Your task to perform on an android device: Search for seafood restaurants on Google Maps Image 0: 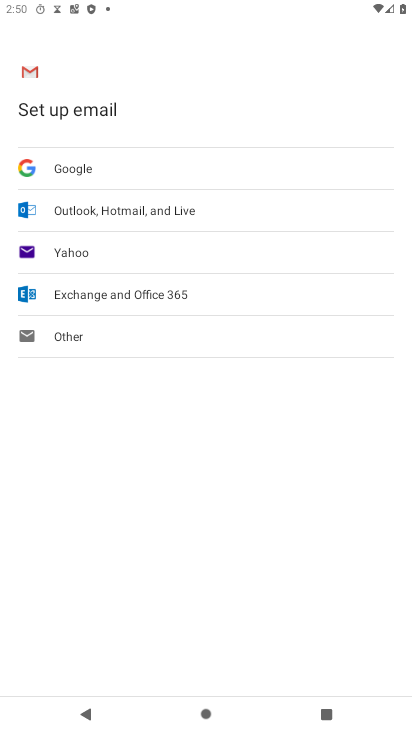
Step 0: press home button
Your task to perform on an android device: Search for seafood restaurants on Google Maps Image 1: 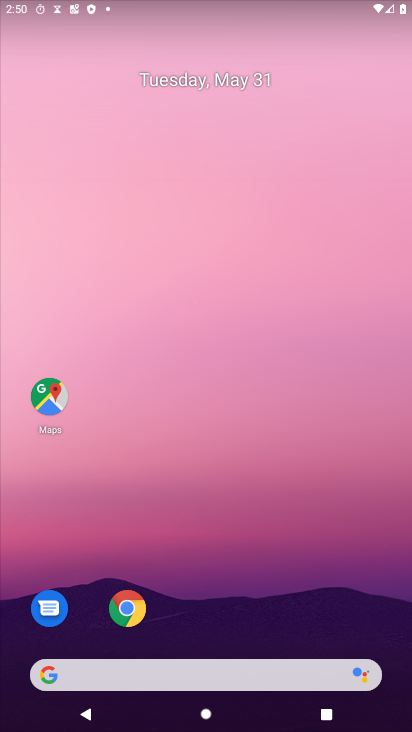
Step 1: click (59, 394)
Your task to perform on an android device: Search for seafood restaurants on Google Maps Image 2: 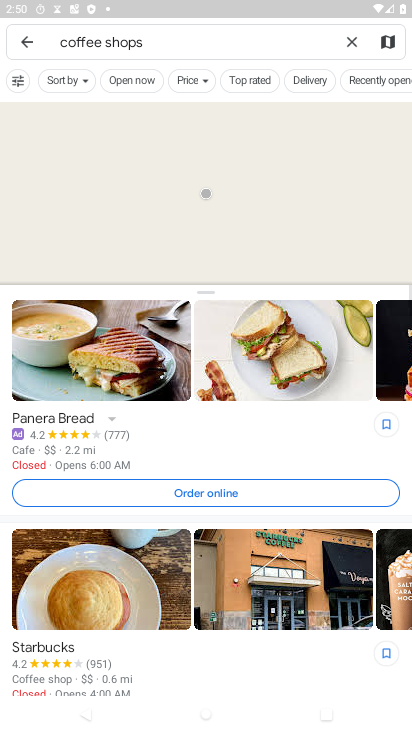
Step 2: click (344, 36)
Your task to perform on an android device: Search for seafood restaurants on Google Maps Image 3: 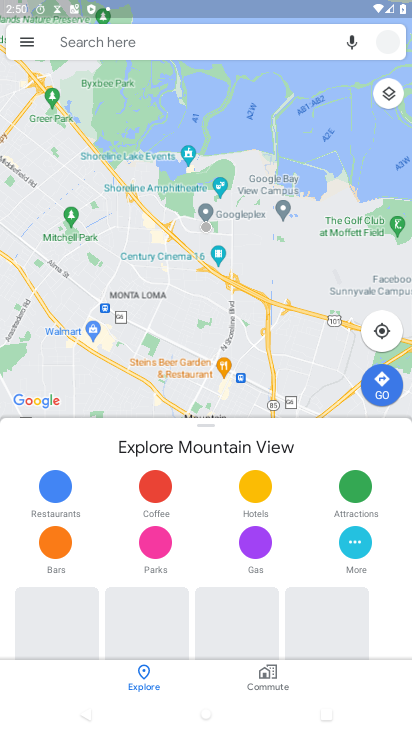
Step 3: click (186, 50)
Your task to perform on an android device: Search for seafood restaurants on Google Maps Image 4: 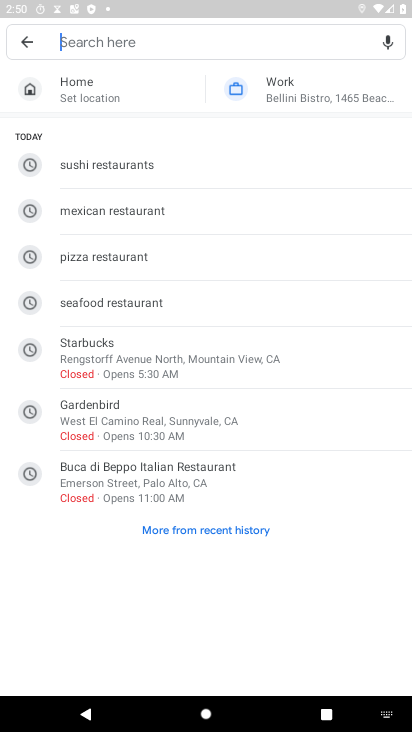
Step 4: type "seafood restaurants"
Your task to perform on an android device: Search for seafood restaurants on Google Maps Image 5: 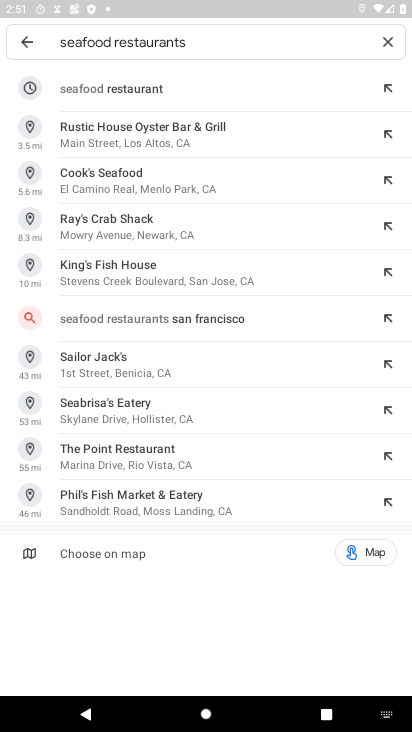
Step 5: click (148, 83)
Your task to perform on an android device: Search for seafood restaurants on Google Maps Image 6: 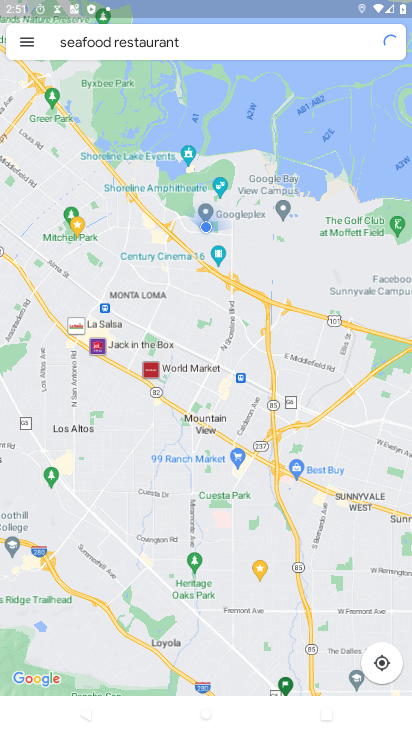
Step 6: task complete